Your task to perform on an android device: move a message to another label in the gmail app Image 0: 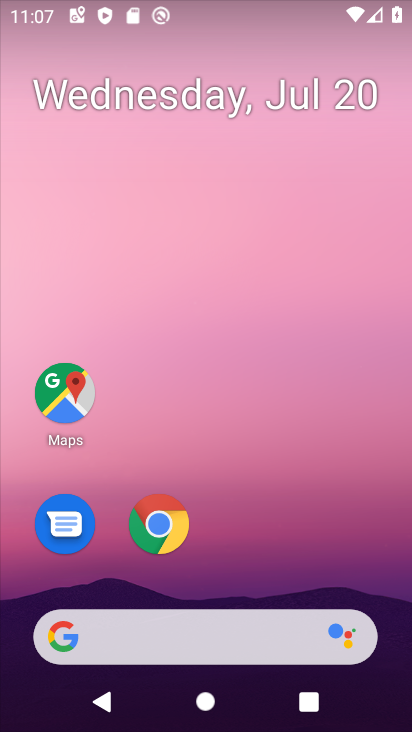
Step 0: drag from (276, 556) to (328, 24)
Your task to perform on an android device: move a message to another label in the gmail app Image 1: 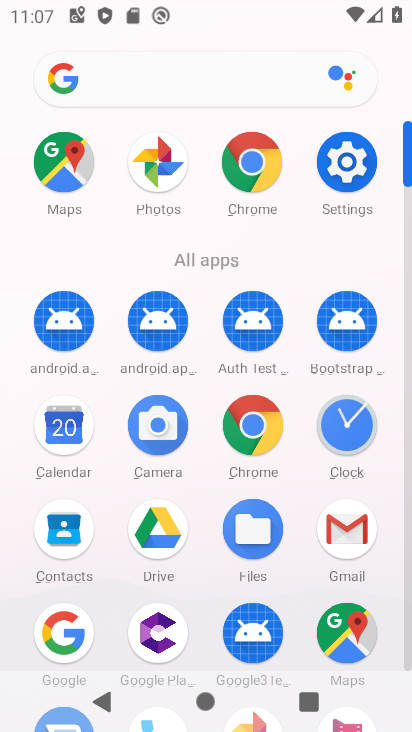
Step 1: click (348, 527)
Your task to perform on an android device: move a message to another label in the gmail app Image 2: 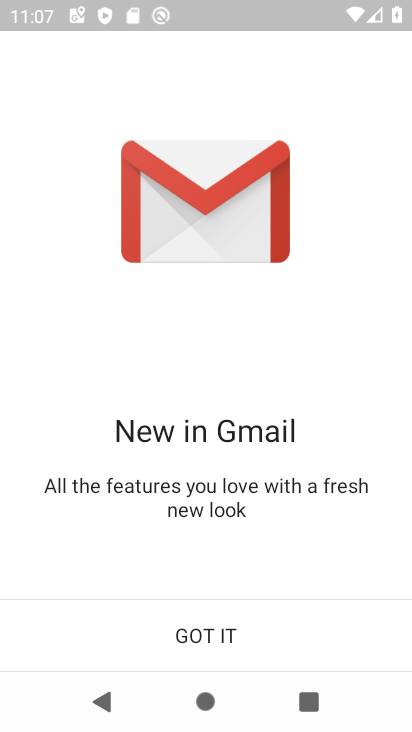
Step 2: click (256, 631)
Your task to perform on an android device: move a message to another label in the gmail app Image 3: 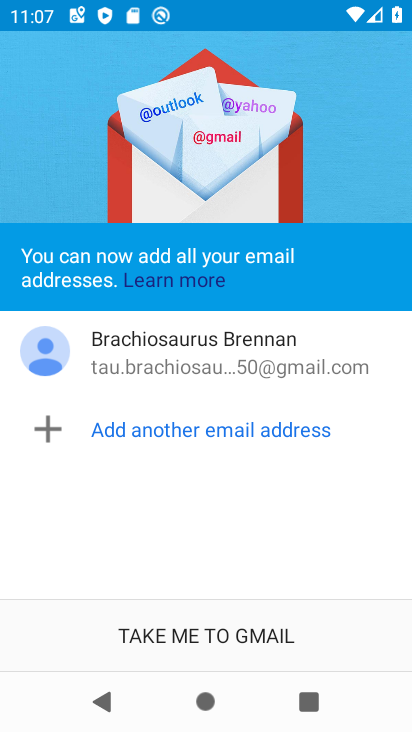
Step 3: click (256, 631)
Your task to perform on an android device: move a message to another label in the gmail app Image 4: 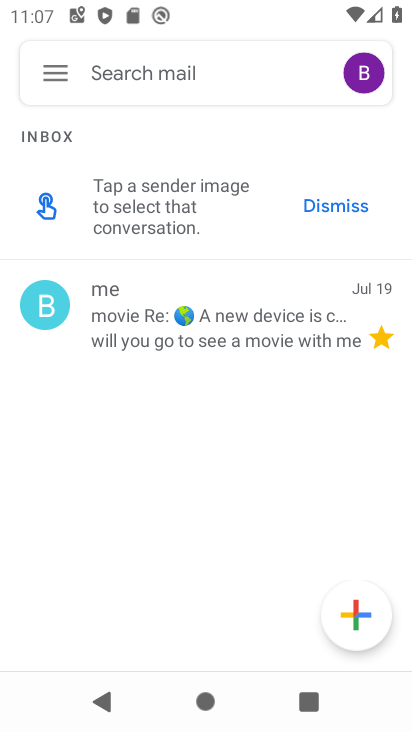
Step 4: click (264, 321)
Your task to perform on an android device: move a message to another label in the gmail app Image 5: 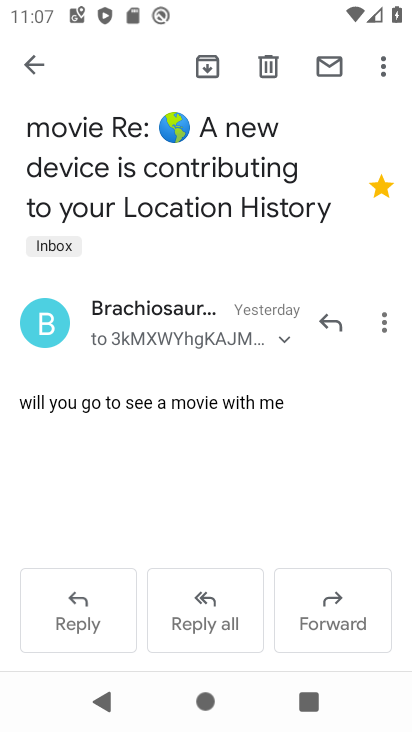
Step 5: click (382, 60)
Your task to perform on an android device: move a message to another label in the gmail app Image 6: 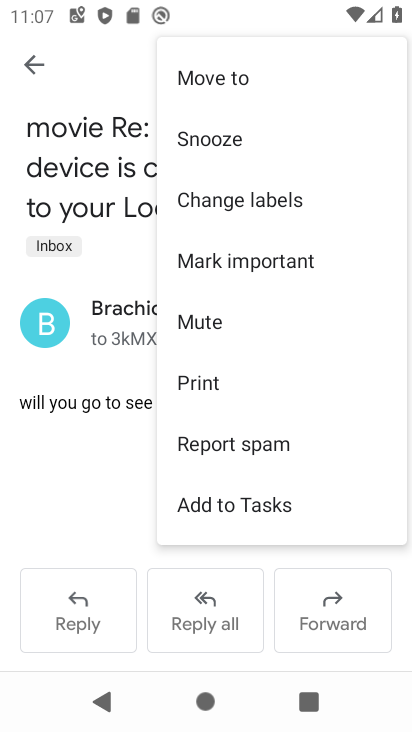
Step 6: click (275, 66)
Your task to perform on an android device: move a message to another label in the gmail app Image 7: 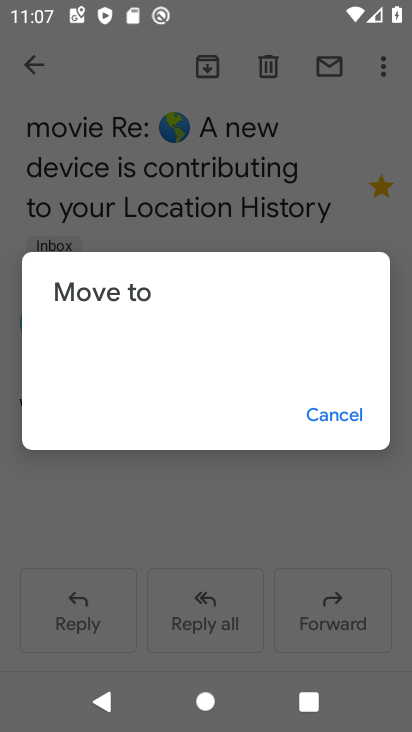
Step 7: click (328, 418)
Your task to perform on an android device: move a message to another label in the gmail app Image 8: 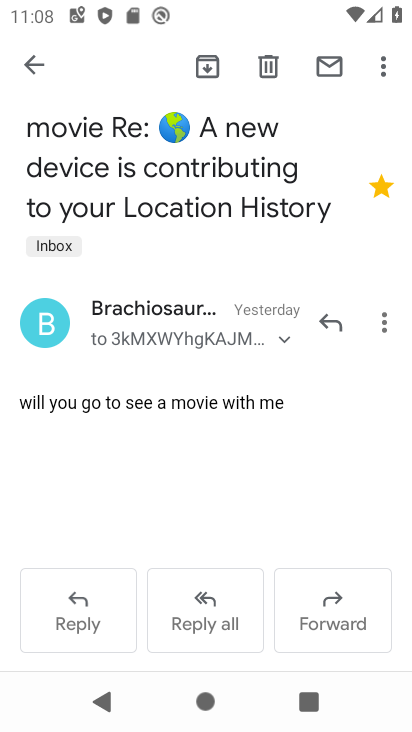
Step 8: click (380, 67)
Your task to perform on an android device: move a message to another label in the gmail app Image 9: 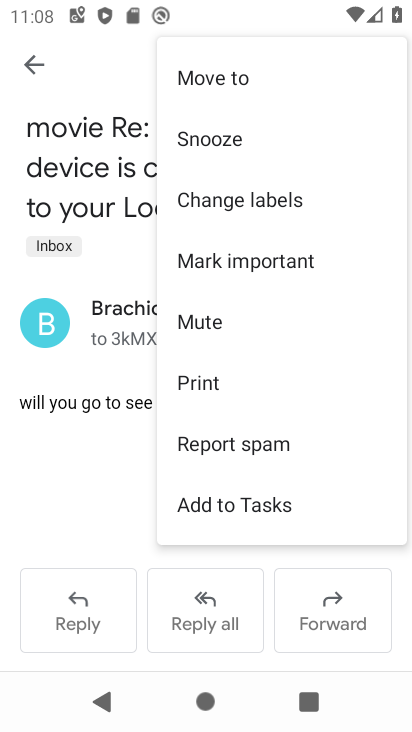
Step 9: click (243, 82)
Your task to perform on an android device: move a message to another label in the gmail app Image 10: 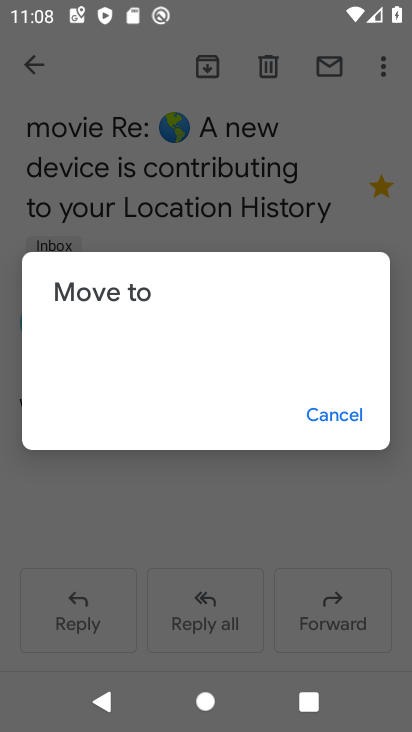
Step 10: click (344, 408)
Your task to perform on an android device: move a message to another label in the gmail app Image 11: 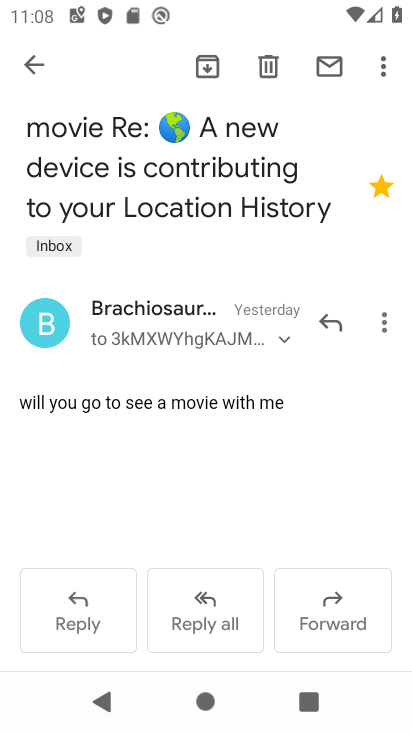
Step 11: task complete